Your task to perform on an android device: Open sound settings Image 0: 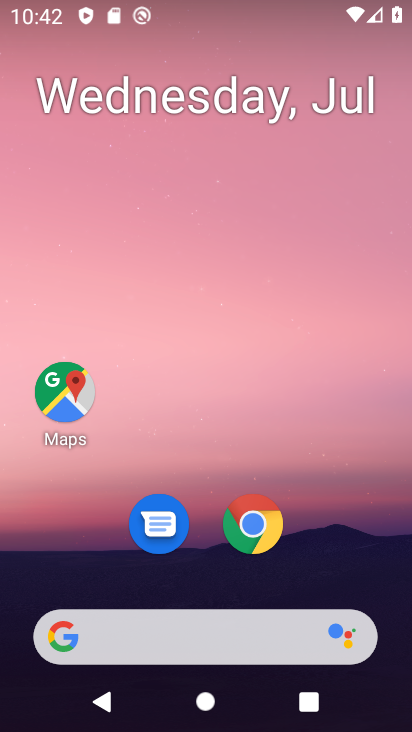
Step 0: press home button
Your task to perform on an android device: Open sound settings Image 1: 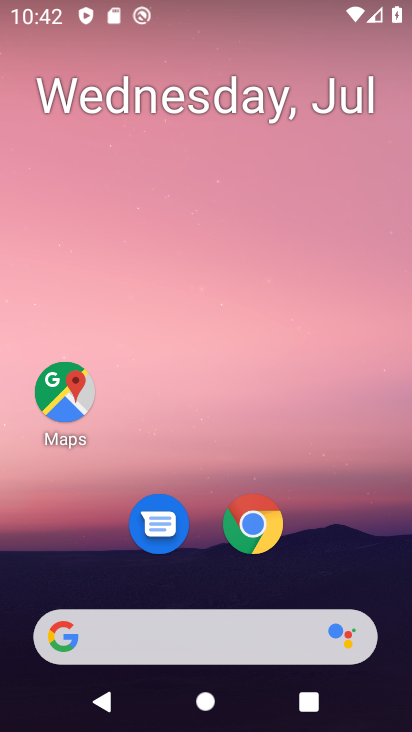
Step 1: drag from (189, 645) to (260, 118)
Your task to perform on an android device: Open sound settings Image 2: 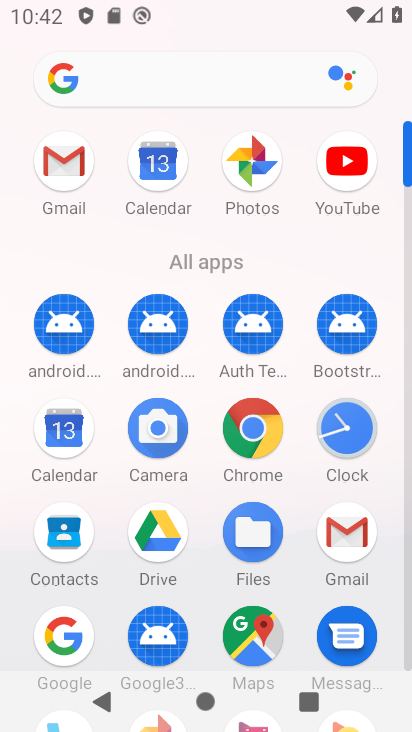
Step 2: drag from (194, 601) to (279, 147)
Your task to perform on an android device: Open sound settings Image 3: 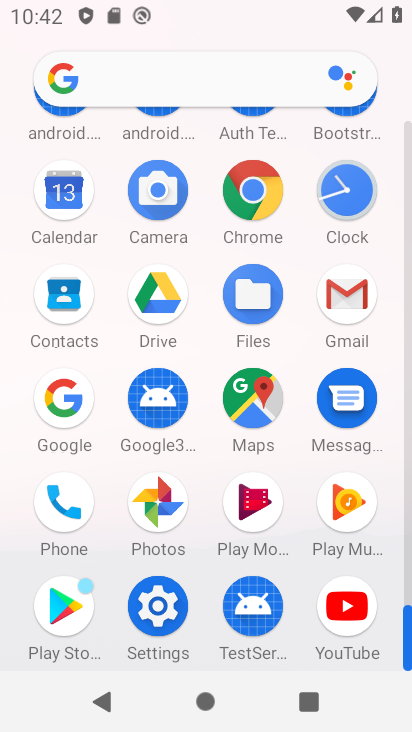
Step 3: click (162, 601)
Your task to perform on an android device: Open sound settings Image 4: 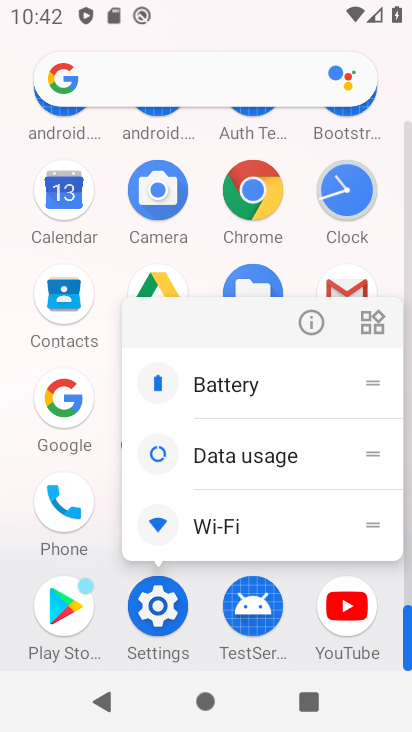
Step 4: click (149, 610)
Your task to perform on an android device: Open sound settings Image 5: 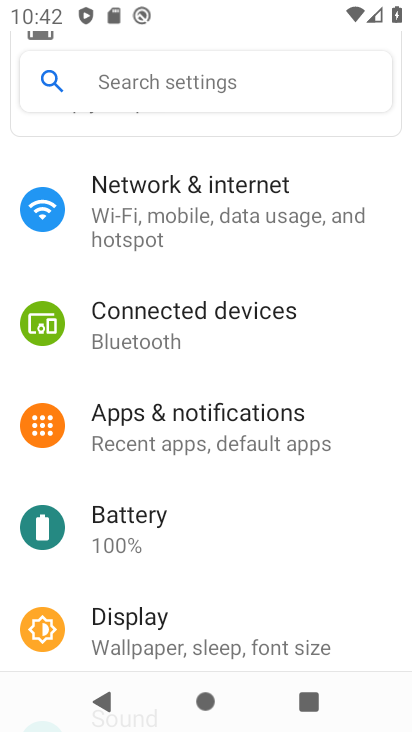
Step 5: drag from (216, 537) to (308, 249)
Your task to perform on an android device: Open sound settings Image 6: 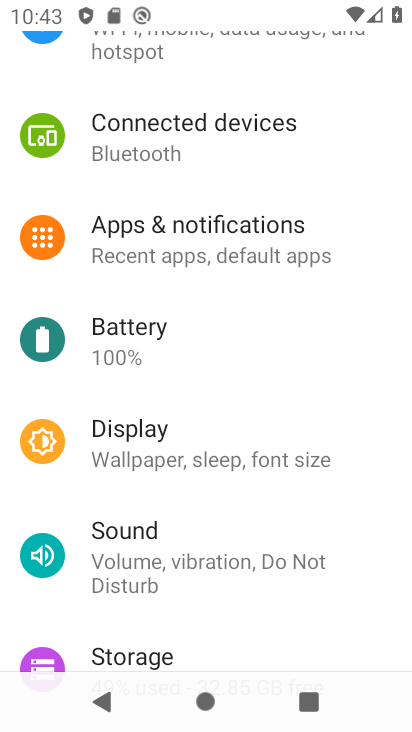
Step 6: click (173, 551)
Your task to perform on an android device: Open sound settings Image 7: 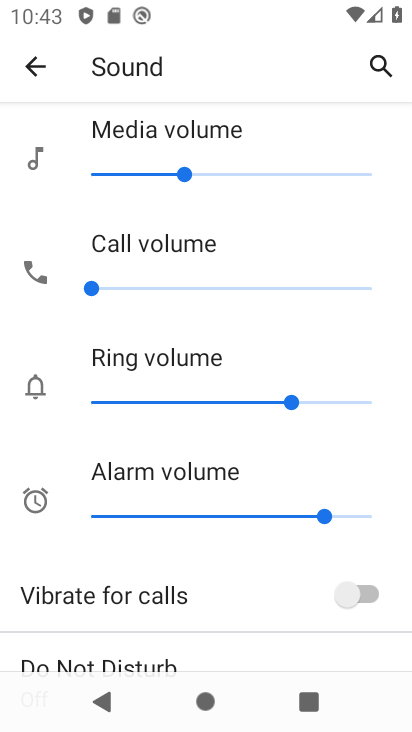
Step 7: task complete